Your task to perform on an android device: turn on priority inbox in the gmail app Image 0: 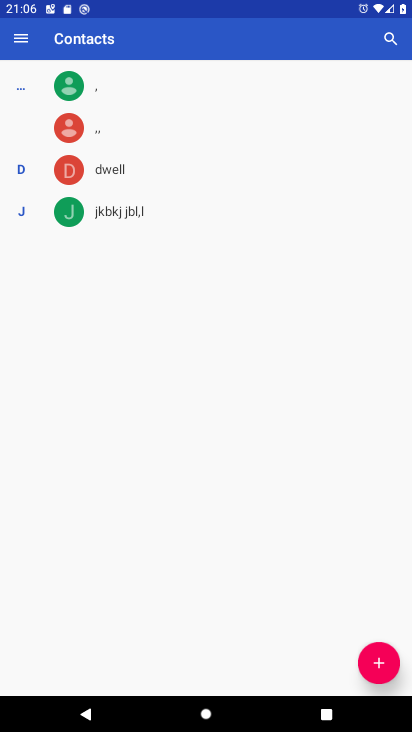
Step 0: press home button
Your task to perform on an android device: turn on priority inbox in the gmail app Image 1: 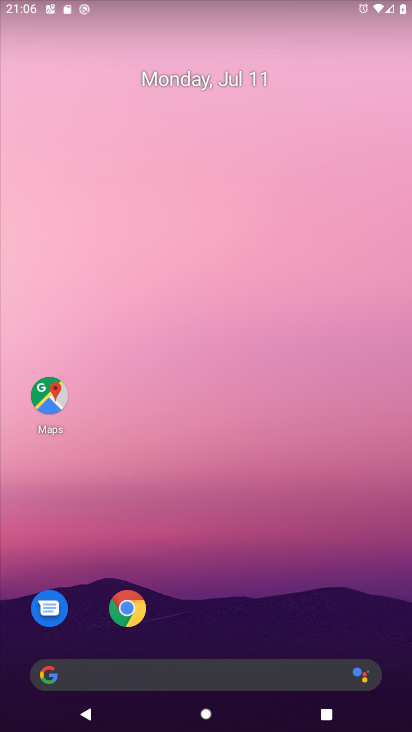
Step 1: drag from (255, 601) to (161, 99)
Your task to perform on an android device: turn on priority inbox in the gmail app Image 2: 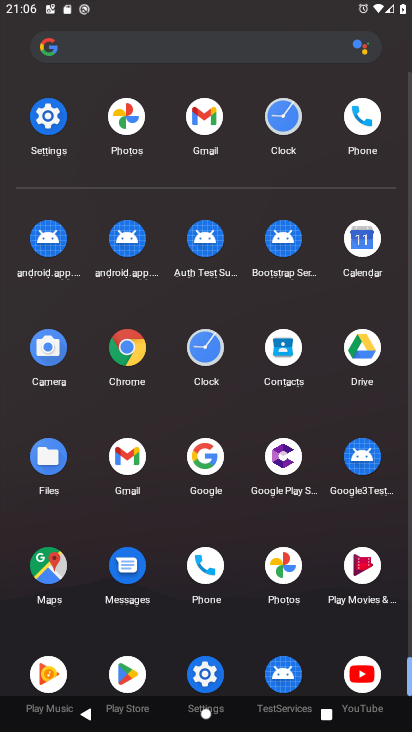
Step 2: click (138, 448)
Your task to perform on an android device: turn on priority inbox in the gmail app Image 3: 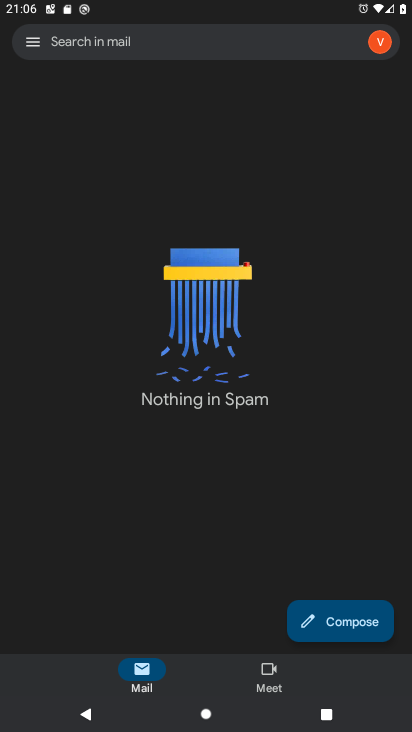
Step 3: click (30, 49)
Your task to perform on an android device: turn on priority inbox in the gmail app Image 4: 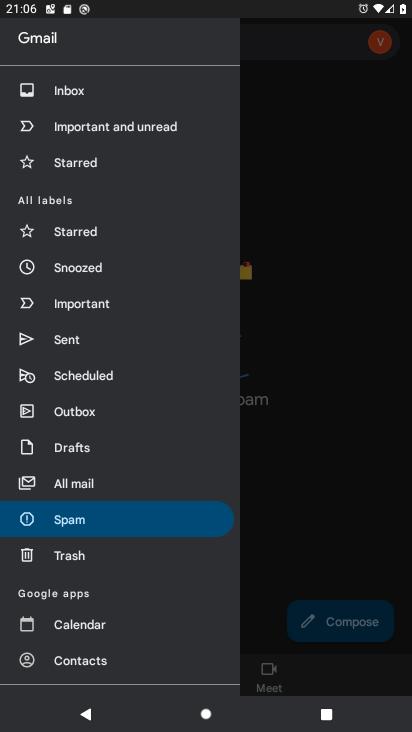
Step 4: drag from (85, 591) to (85, 386)
Your task to perform on an android device: turn on priority inbox in the gmail app Image 5: 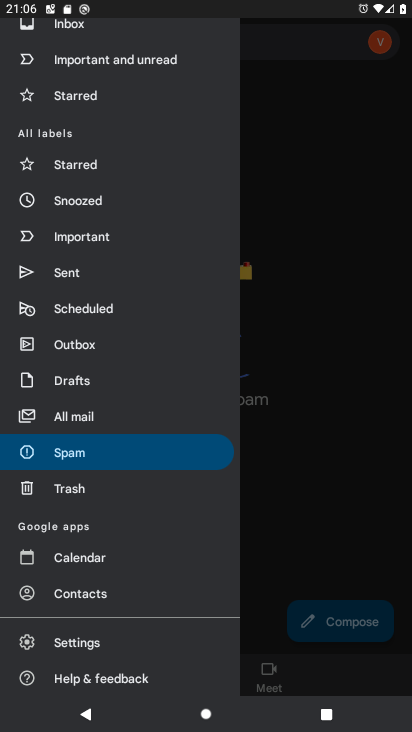
Step 5: click (76, 632)
Your task to perform on an android device: turn on priority inbox in the gmail app Image 6: 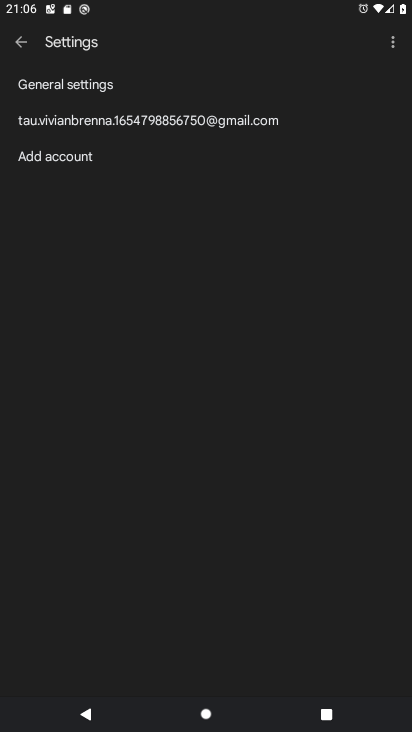
Step 6: click (155, 131)
Your task to perform on an android device: turn on priority inbox in the gmail app Image 7: 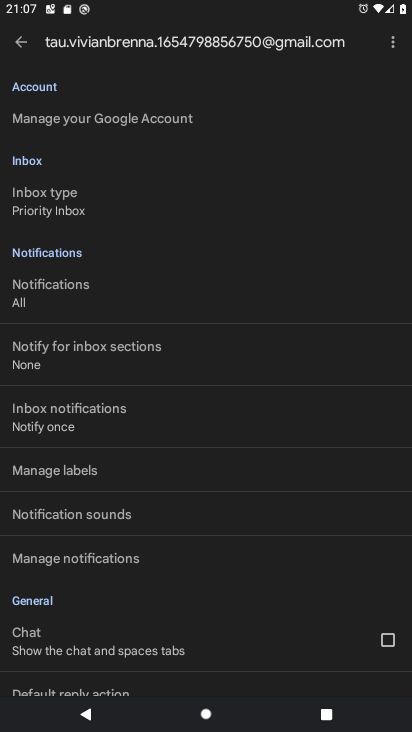
Step 7: task complete